Your task to perform on an android device: Open eBay Image 0: 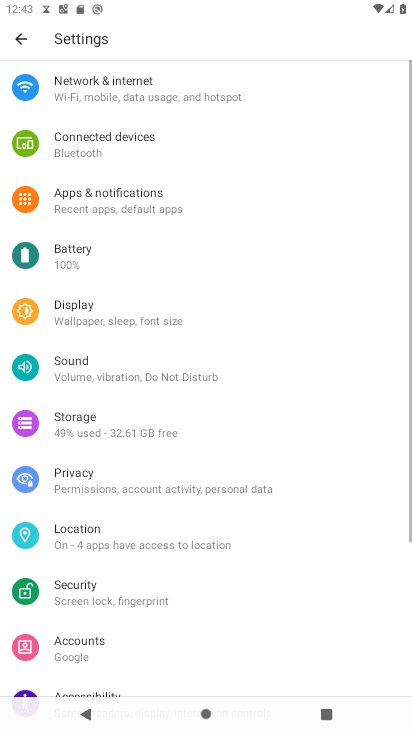
Step 0: press home button
Your task to perform on an android device: Open eBay Image 1: 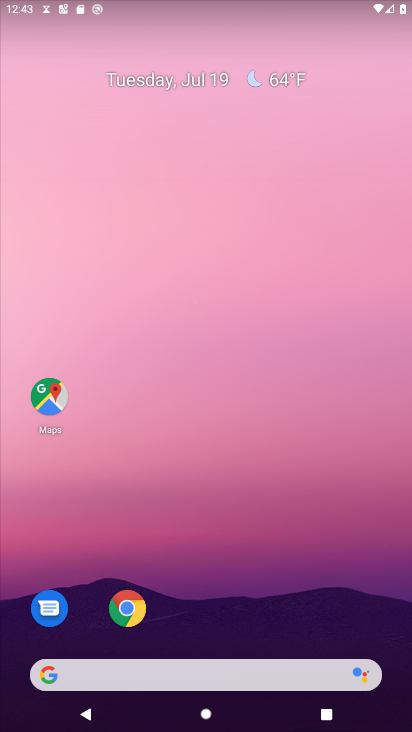
Step 1: drag from (288, 609) to (311, 185)
Your task to perform on an android device: Open eBay Image 2: 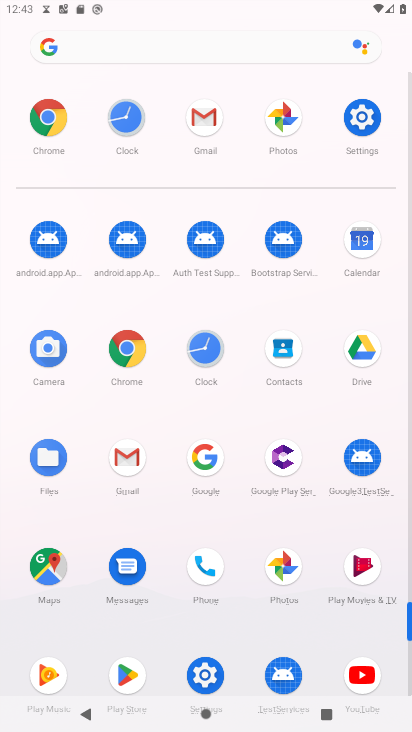
Step 2: click (130, 370)
Your task to perform on an android device: Open eBay Image 3: 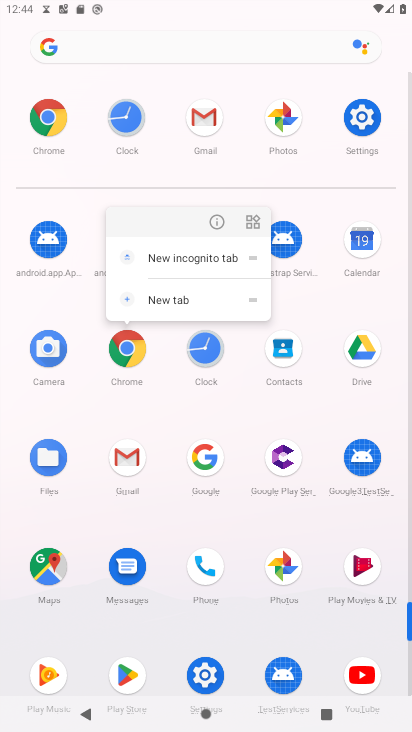
Step 3: click (126, 357)
Your task to perform on an android device: Open eBay Image 4: 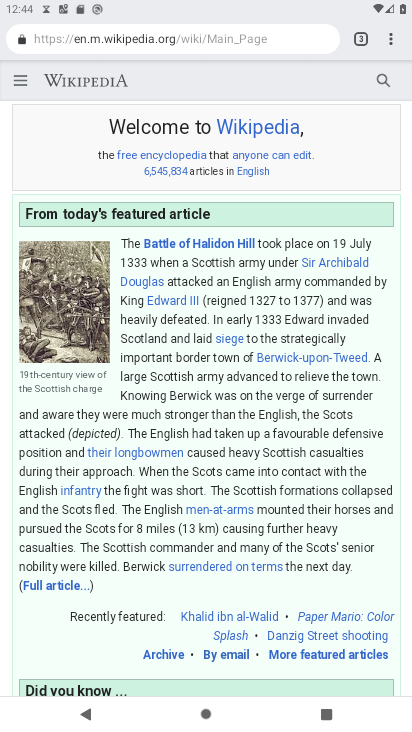
Step 4: click (364, 47)
Your task to perform on an android device: Open eBay Image 5: 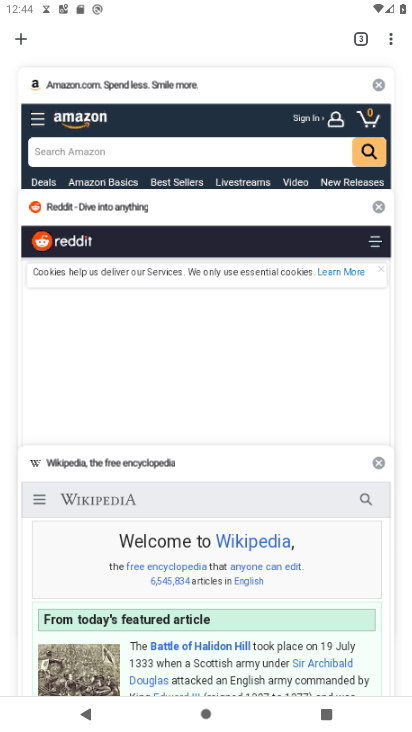
Step 5: click (24, 47)
Your task to perform on an android device: Open eBay Image 6: 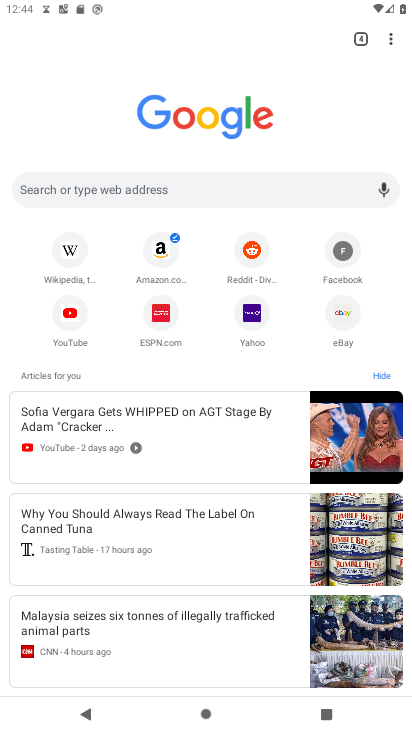
Step 6: click (153, 196)
Your task to perform on an android device: Open eBay Image 7: 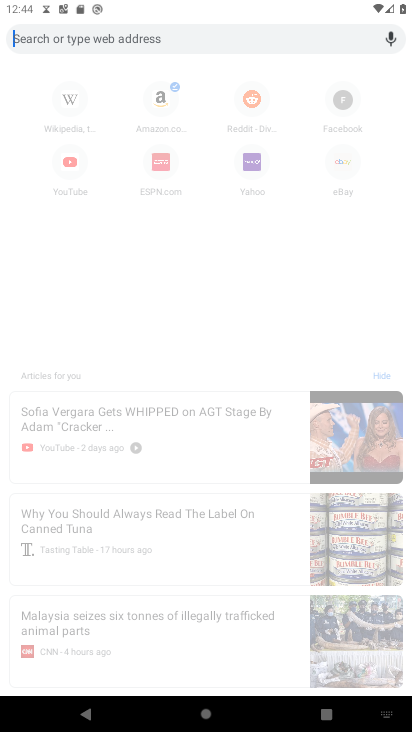
Step 7: type "eBay"
Your task to perform on an android device: Open eBay Image 8: 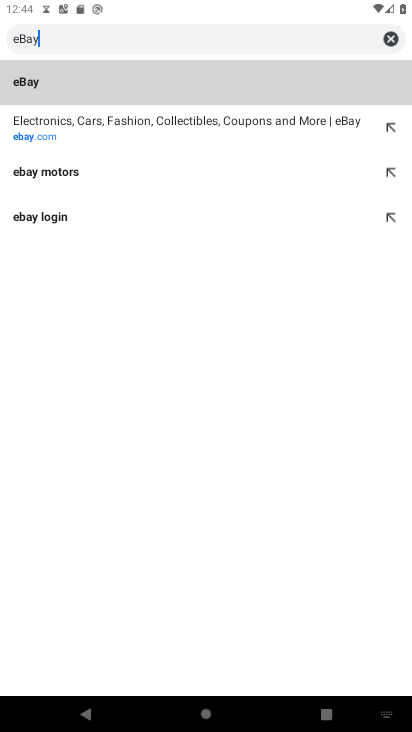
Step 8: type ""
Your task to perform on an android device: Open eBay Image 9: 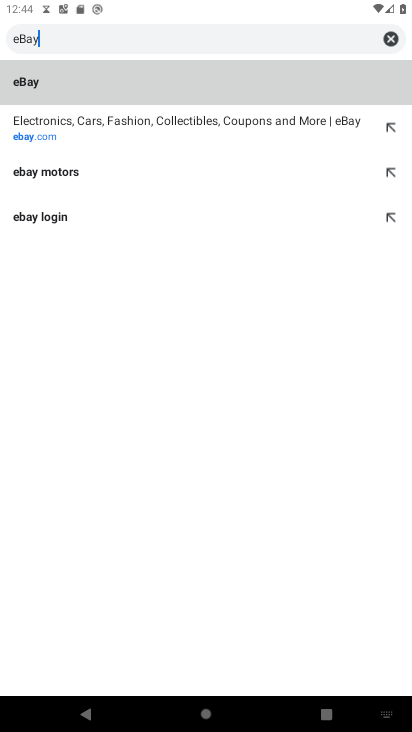
Step 9: click (113, 102)
Your task to perform on an android device: Open eBay Image 10: 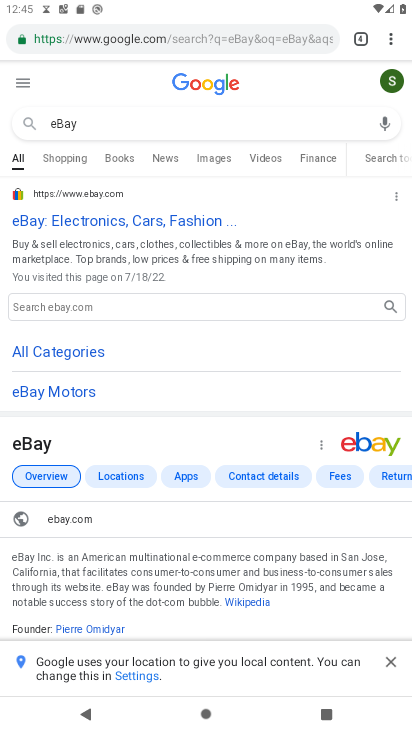
Step 10: task complete